Your task to perform on an android device: Open display settings Image 0: 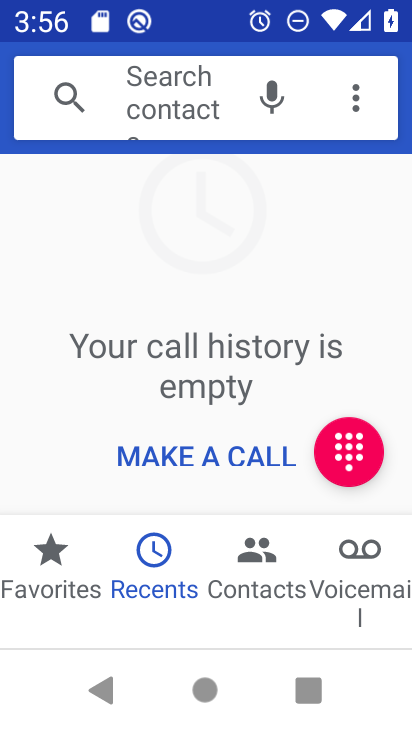
Step 0: drag from (382, 526) to (370, 341)
Your task to perform on an android device: Open display settings Image 1: 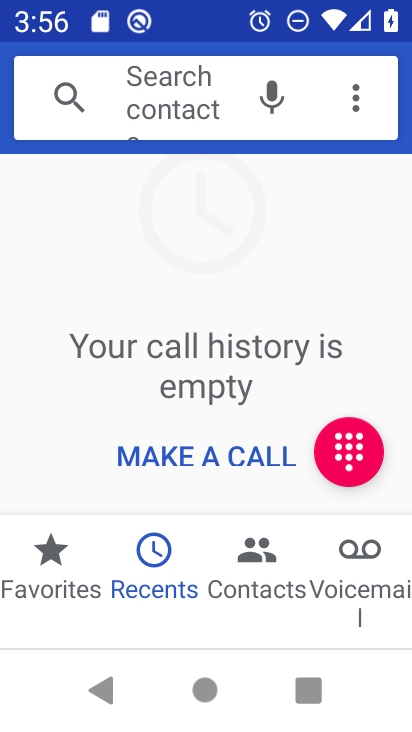
Step 1: press home button
Your task to perform on an android device: Open display settings Image 2: 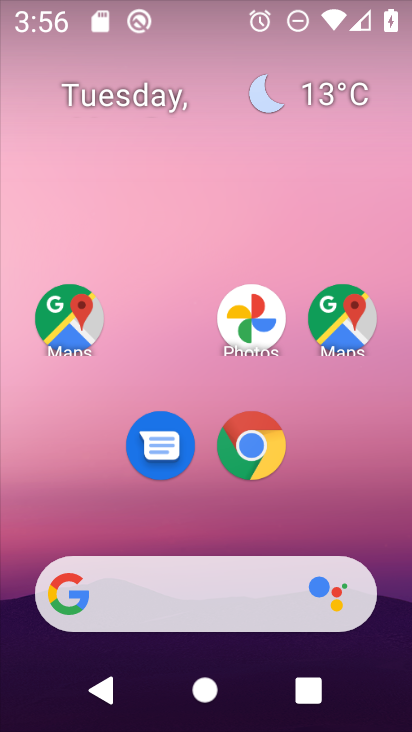
Step 2: drag from (390, 553) to (385, 255)
Your task to perform on an android device: Open display settings Image 3: 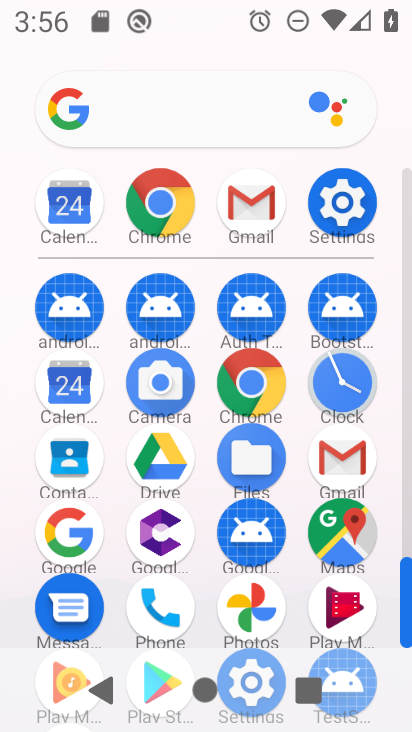
Step 3: drag from (385, 630) to (379, 424)
Your task to perform on an android device: Open display settings Image 4: 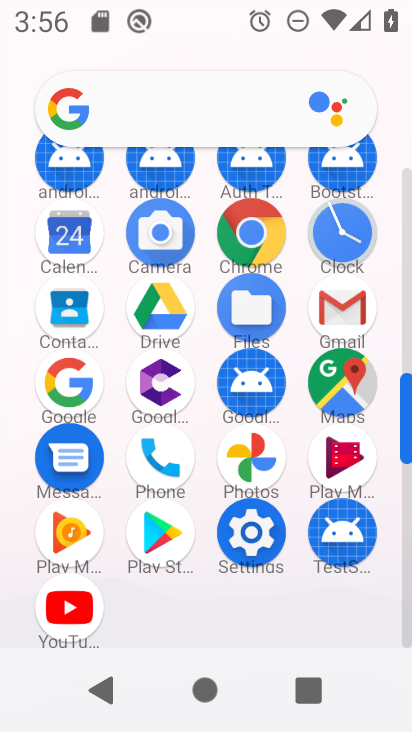
Step 4: click (250, 545)
Your task to perform on an android device: Open display settings Image 5: 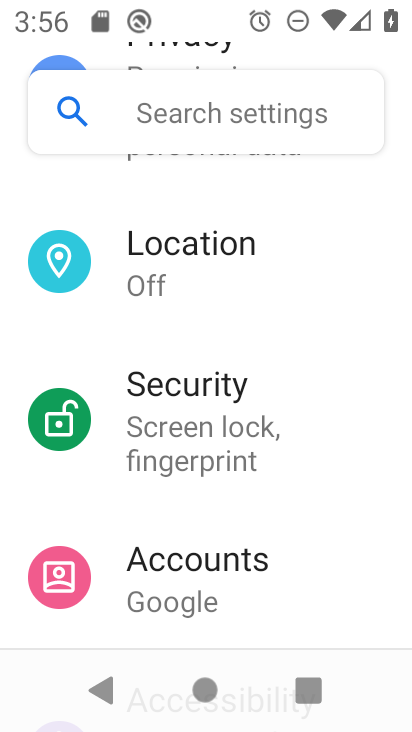
Step 5: drag from (338, 385) to (324, 460)
Your task to perform on an android device: Open display settings Image 6: 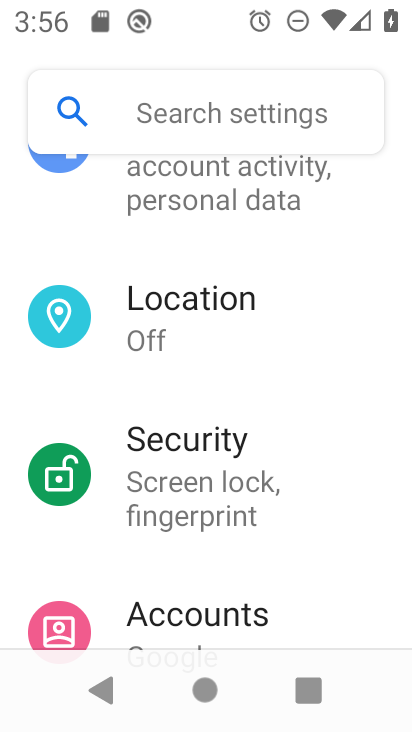
Step 6: drag from (317, 331) to (319, 442)
Your task to perform on an android device: Open display settings Image 7: 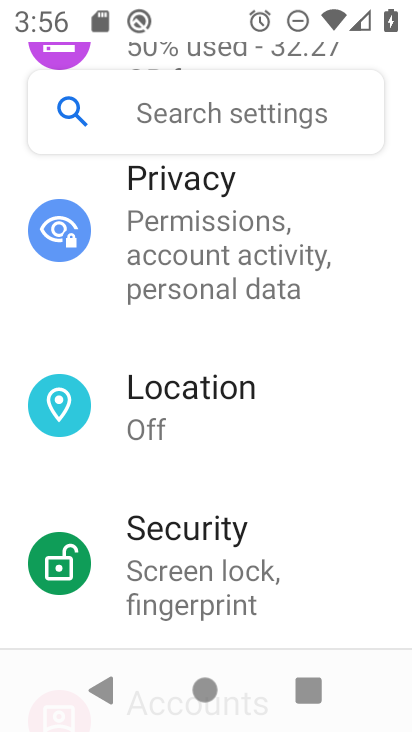
Step 7: drag from (338, 299) to (327, 439)
Your task to perform on an android device: Open display settings Image 8: 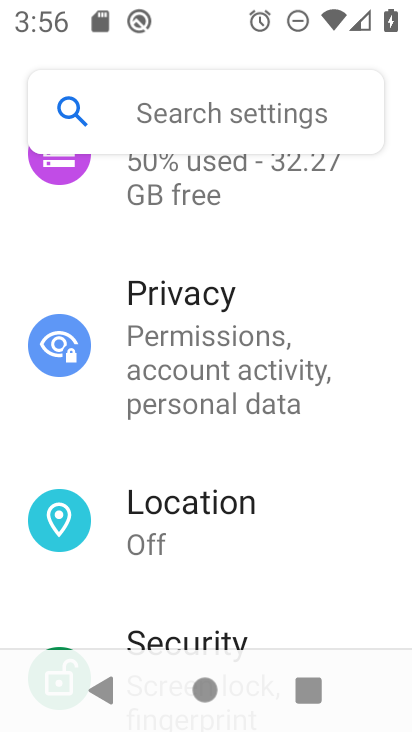
Step 8: drag from (333, 265) to (345, 403)
Your task to perform on an android device: Open display settings Image 9: 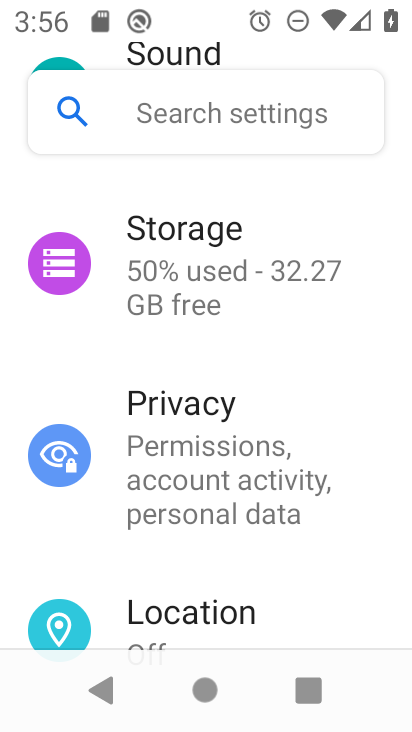
Step 9: drag from (352, 230) to (362, 363)
Your task to perform on an android device: Open display settings Image 10: 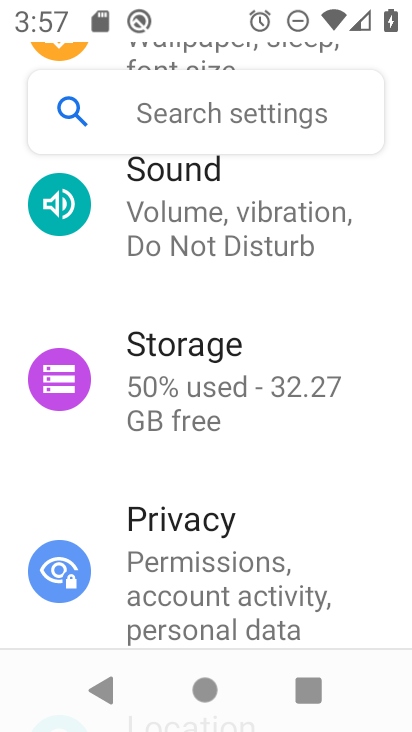
Step 10: drag from (368, 213) to (374, 363)
Your task to perform on an android device: Open display settings Image 11: 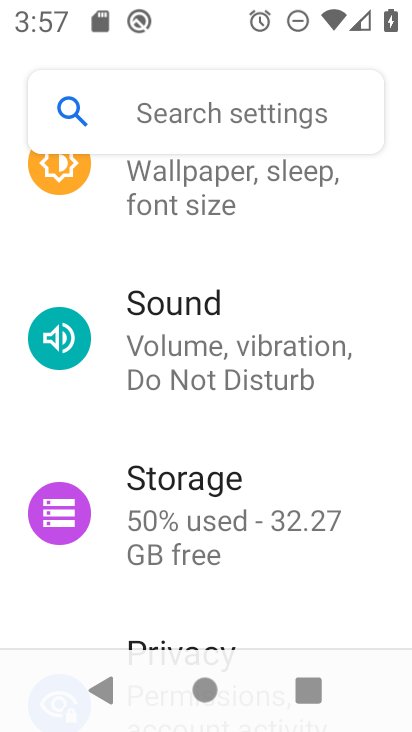
Step 11: drag from (356, 216) to (342, 333)
Your task to perform on an android device: Open display settings Image 12: 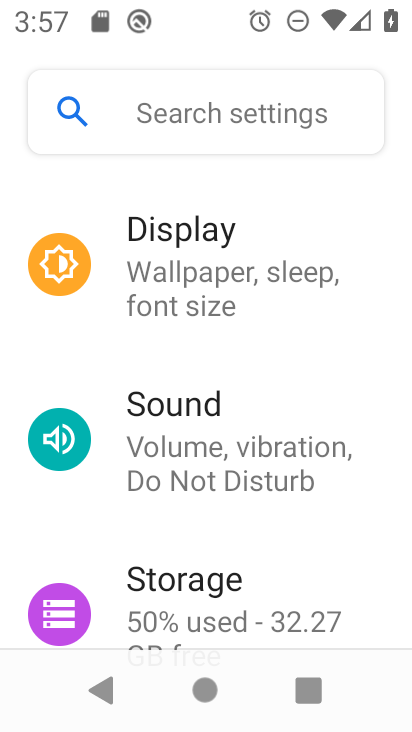
Step 12: drag from (353, 217) to (351, 292)
Your task to perform on an android device: Open display settings Image 13: 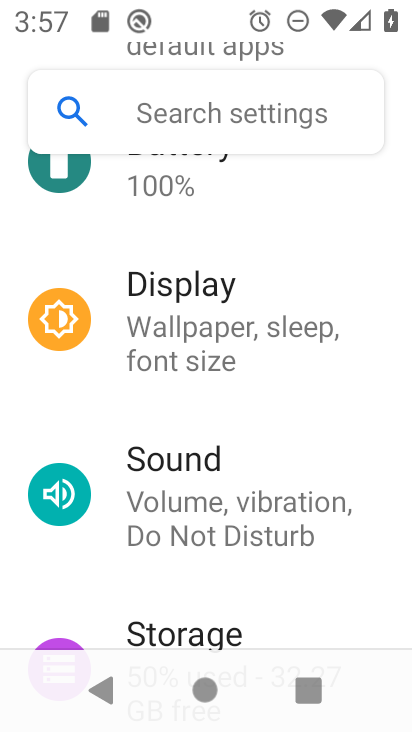
Step 13: drag from (356, 183) to (339, 306)
Your task to perform on an android device: Open display settings Image 14: 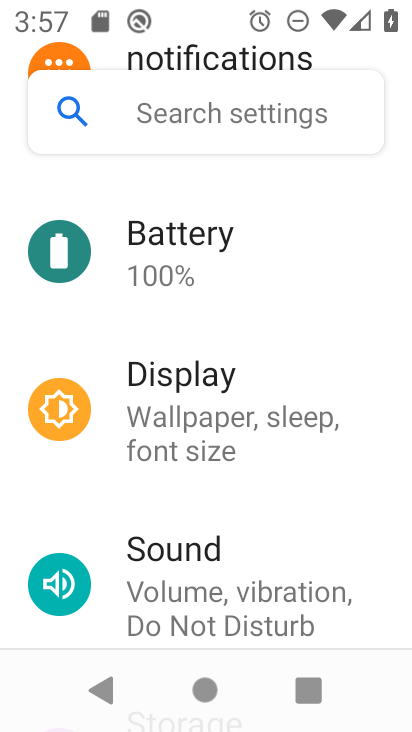
Step 14: drag from (317, 268) to (319, 378)
Your task to perform on an android device: Open display settings Image 15: 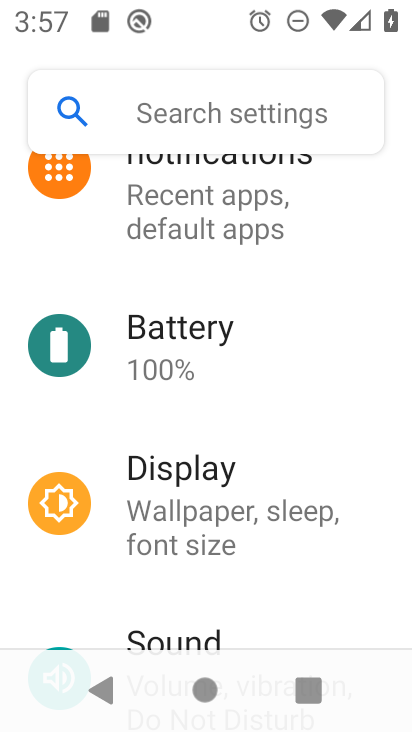
Step 15: click (313, 518)
Your task to perform on an android device: Open display settings Image 16: 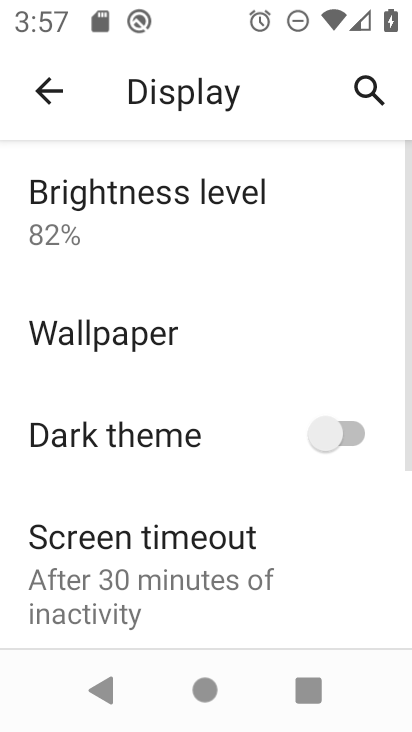
Step 16: task complete